Your task to perform on an android device: Go to display settings Image 0: 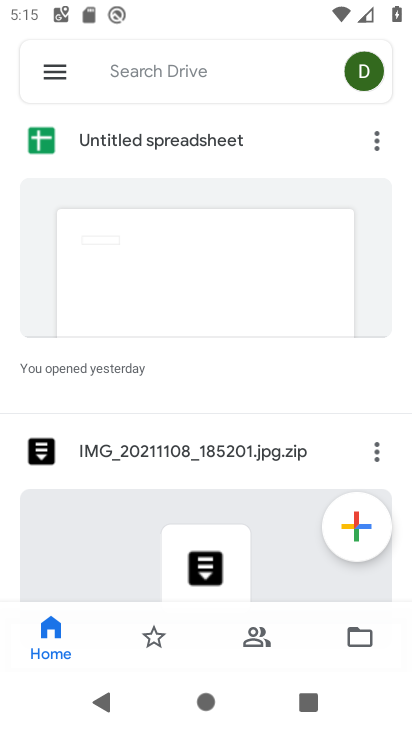
Step 0: press home button
Your task to perform on an android device: Go to display settings Image 1: 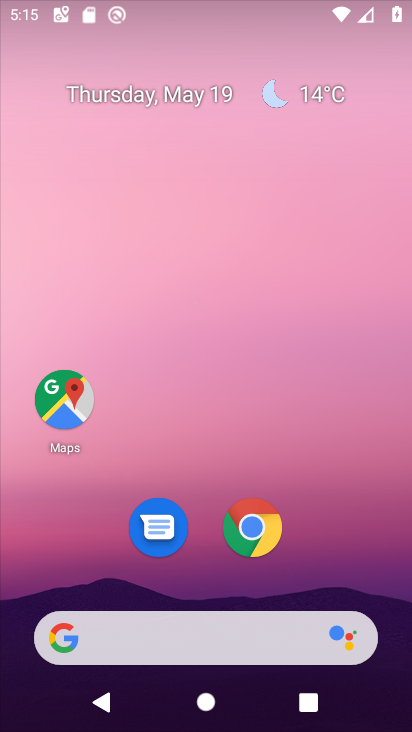
Step 1: drag from (290, 331) to (222, 58)
Your task to perform on an android device: Go to display settings Image 2: 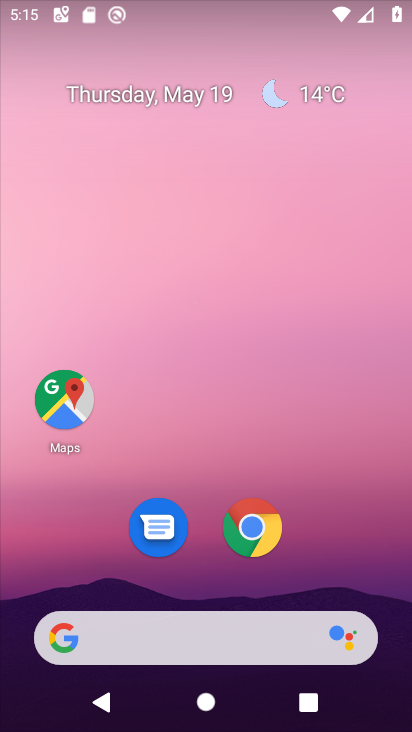
Step 2: drag from (320, 542) to (218, 9)
Your task to perform on an android device: Go to display settings Image 3: 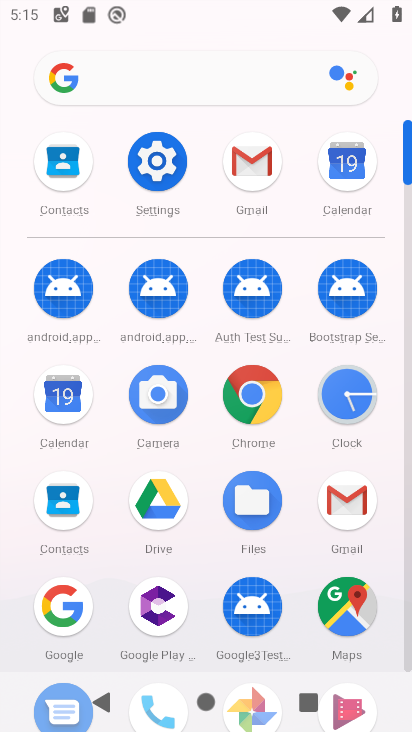
Step 3: click (166, 169)
Your task to perform on an android device: Go to display settings Image 4: 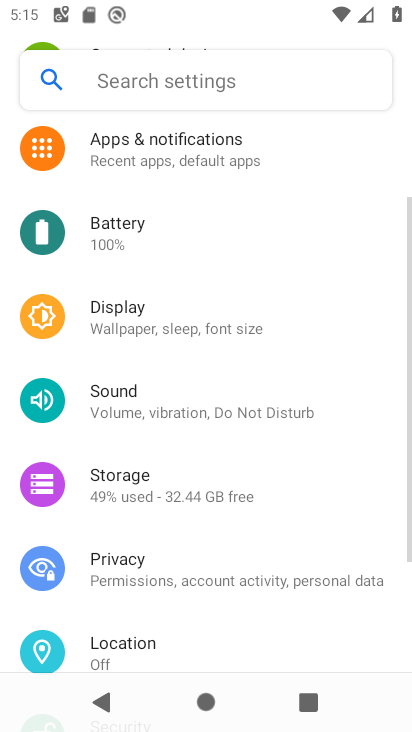
Step 4: click (165, 312)
Your task to perform on an android device: Go to display settings Image 5: 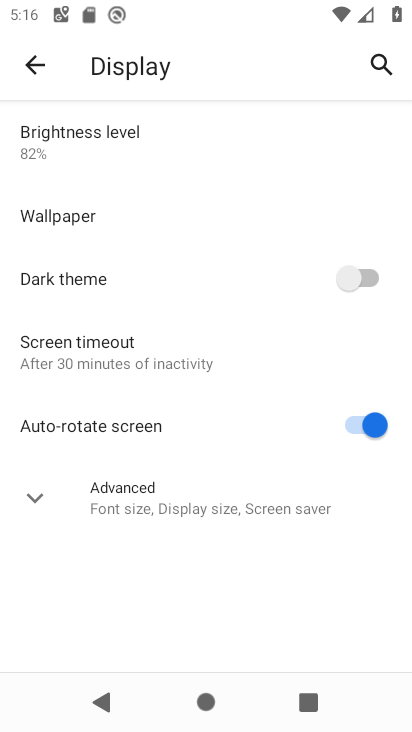
Step 5: task complete